Your task to perform on an android device: Go to accessibility settings Image 0: 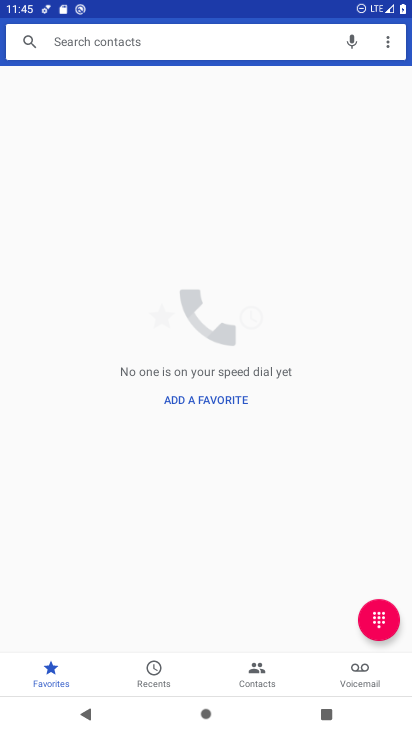
Step 0: drag from (241, 7) to (256, 705)
Your task to perform on an android device: Go to accessibility settings Image 1: 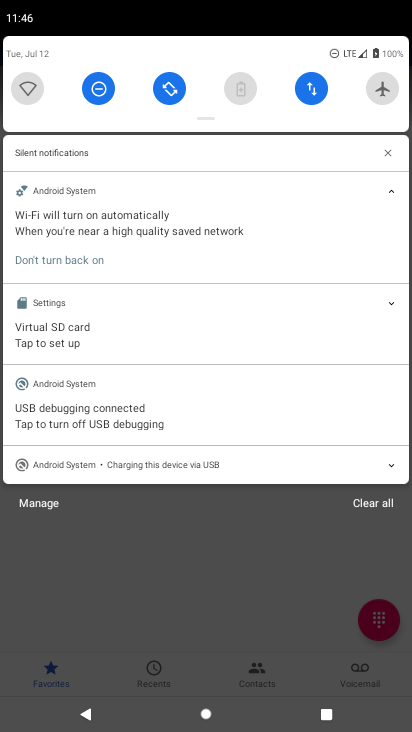
Step 1: drag from (243, 56) to (256, 685)
Your task to perform on an android device: Go to accessibility settings Image 2: 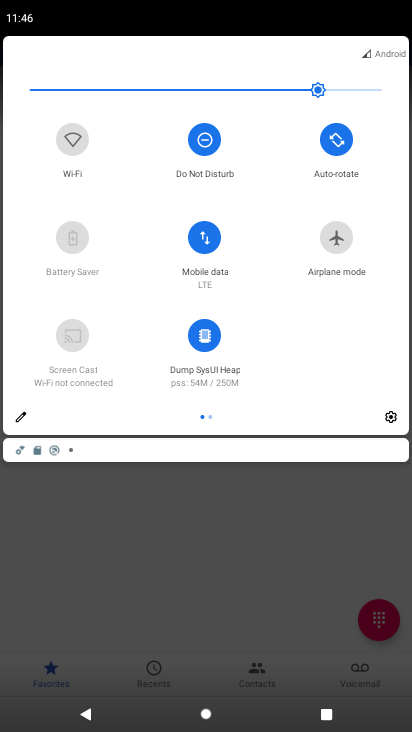
Step 2: click (389, 418)
Your task to perform on an android device: Go to accessibility settings Image 3: 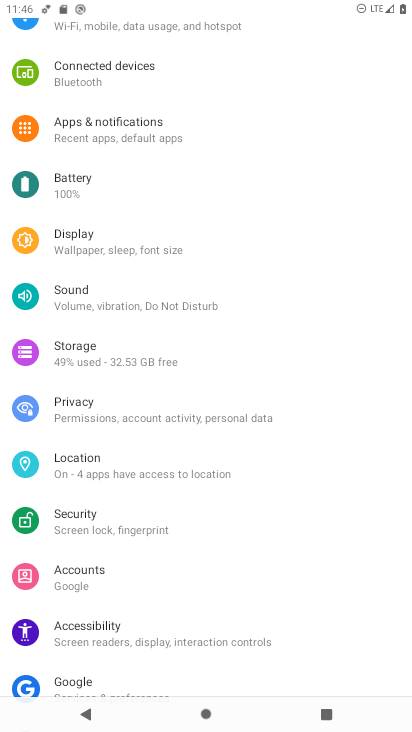
Step 3: click (94, 634)
Your task to perform on an android device: Go to accessibility settings Image 4: 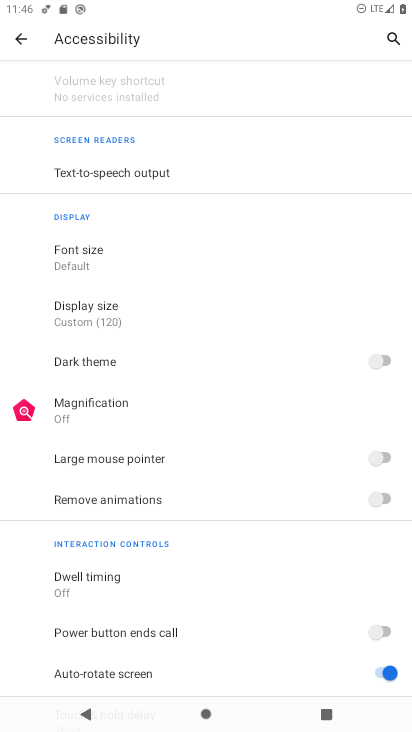
Step 4: task complete